Your task to perform on an android device: change timer sound Image 0: 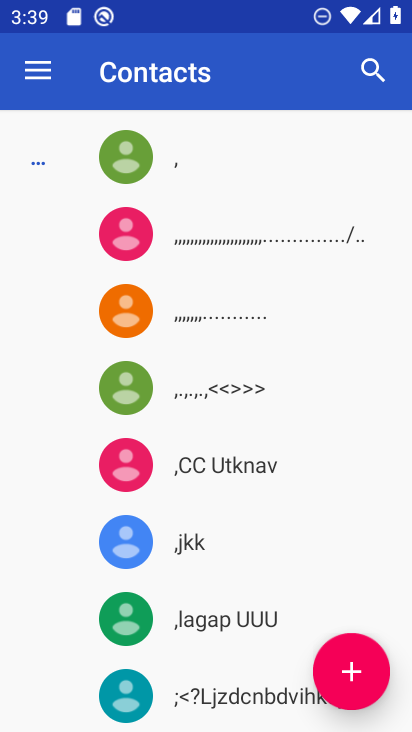
Step 0: press home button
Your task to perform on an android device: change timer sound Image 1: 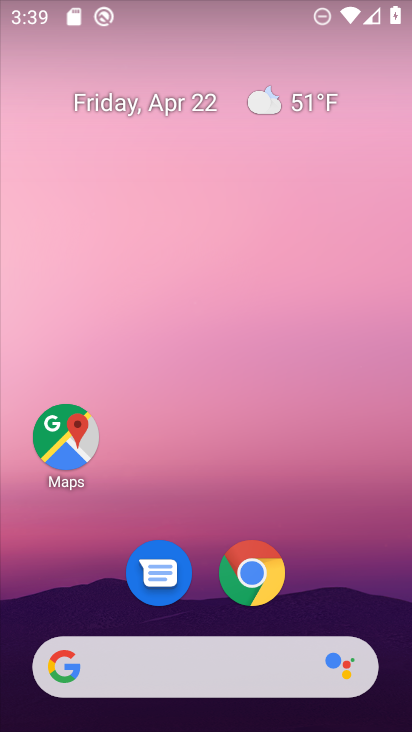
Step 1: drag from (161, 284) to (169, 89)
Your task to perform on an android device: change timer sound Image 2: 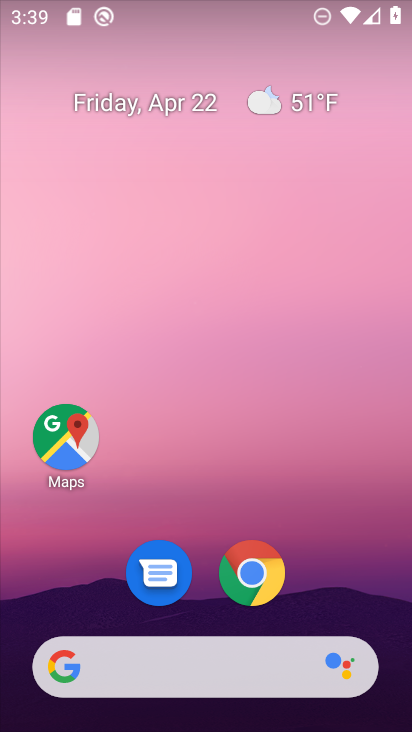
Step 2: drag from (340, 551) to (320, 83)
Your task to perform on an android device: change timer sound Image 3: 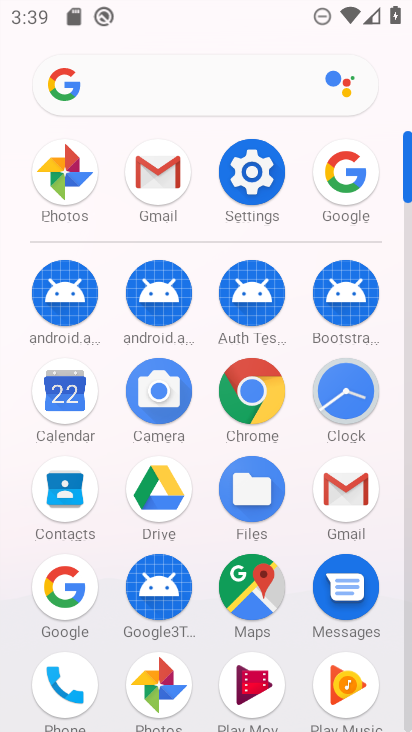
Step 3: click (268, 176)
Your task to perform on an android device: change timer sound Image 4: 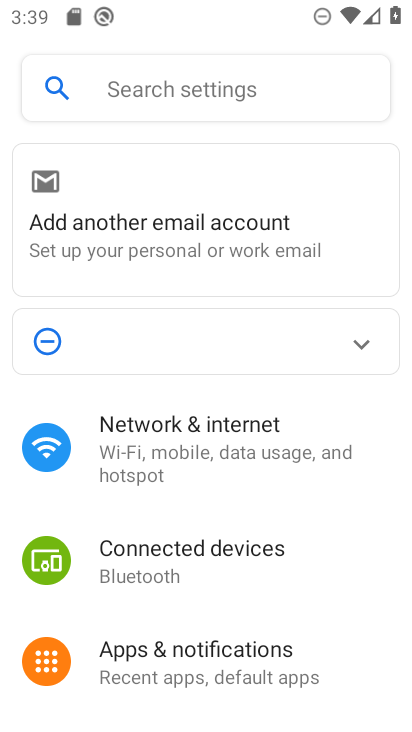
Step 4: press home button
Your task to perform on an android device: change timer sound Image 5: 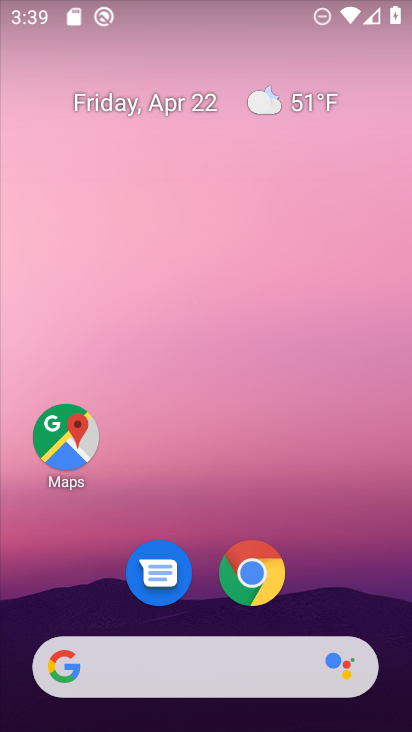
Step 5: drag from (369, 551) to (351, 241)
Your task to perform on an android device: change timer sound Image 6: 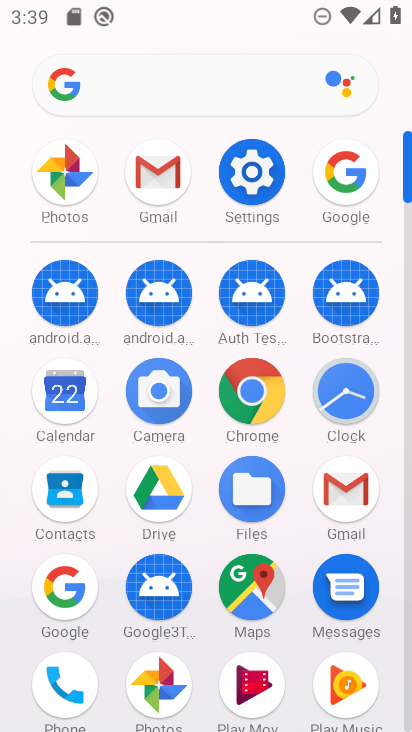
Step 6: click (349, 394)
Your task to perform on an android device: change timer sound Image 7: 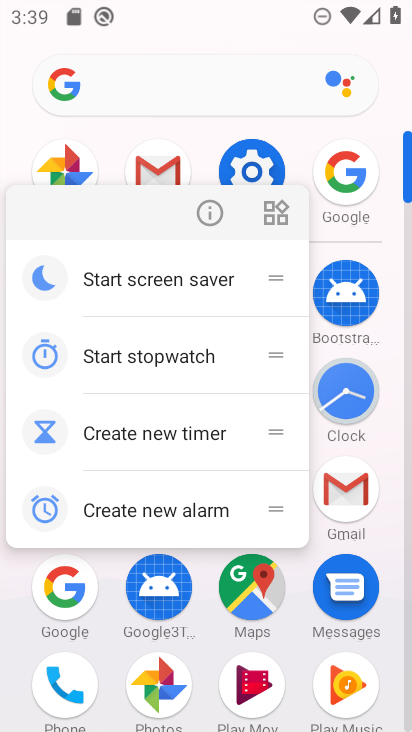
Step 7: click (349, 394)
Your task to perform on an android device: change timer sound Image 8: 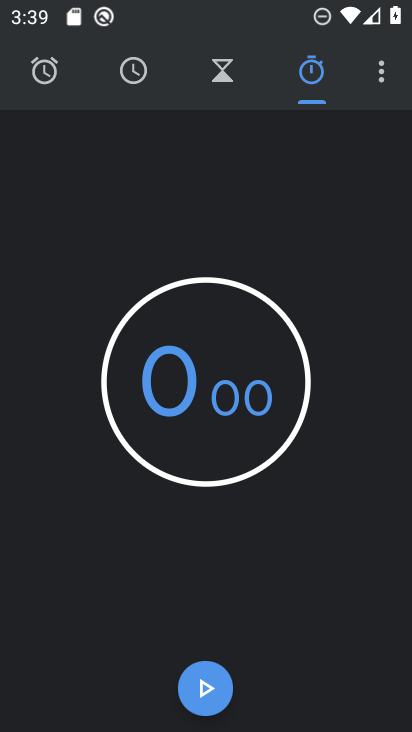
Step 8: click (389, 75)
Your task to perform on an android device: change timer sound Image 9: 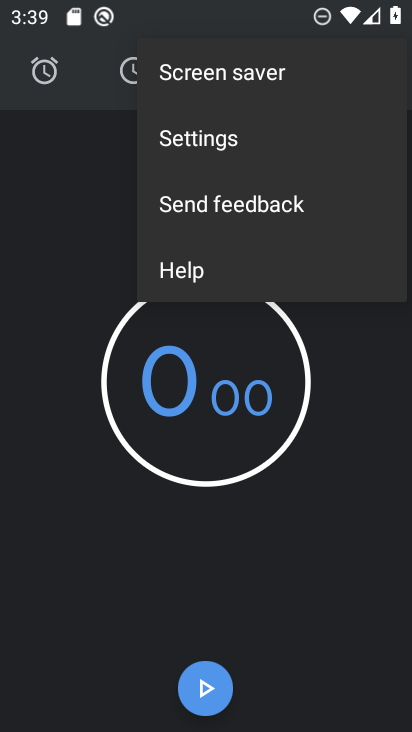
Step 9: click (259, 128)
Your task to perform on an android device: change timer sound Image 10: 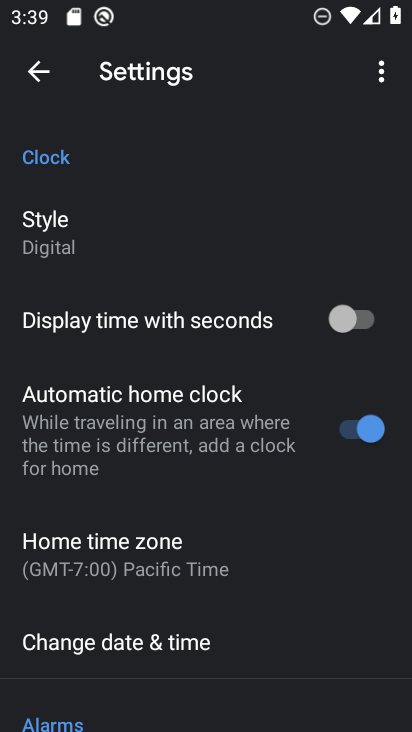
Step 10: drag from (208, 559) to (222, 189)
Your task to perform on an android device: change timer sound Image 11: 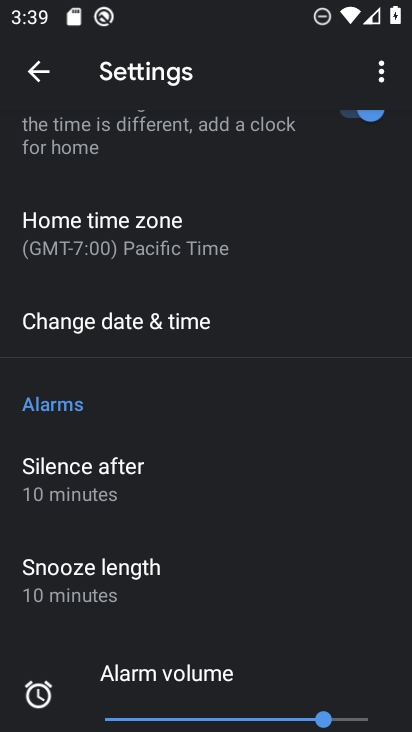
Step 11: drag from (213, 441) to (203, 173)
Your task to perform on an android device: change timer sound Image 12: 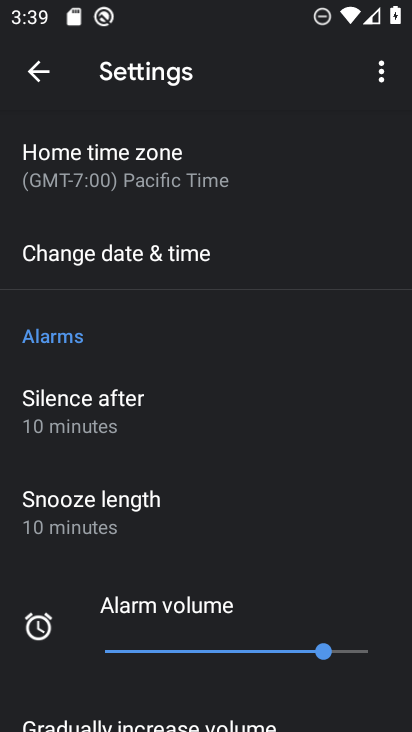
Step 12: drag from (257, 435) to (263, 106)
Your task to perform on an android device: change timer sound Image 13: 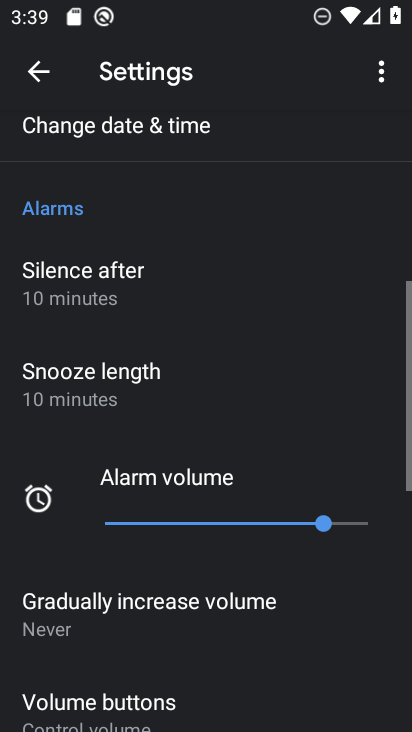
Step 13: drag from (251, 564) to (307, 113)
Your task to perform on an android device: change timer sound Image 14: 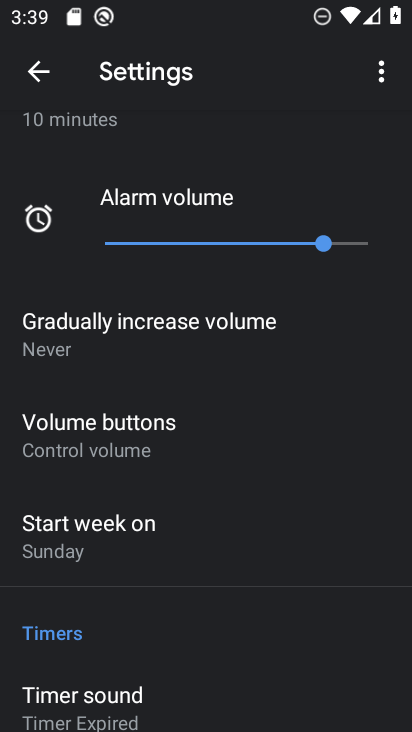
Step 14: drag from (238, 566) to (284, 187)
Your task to perform on an android device: change timer sound Image 15: 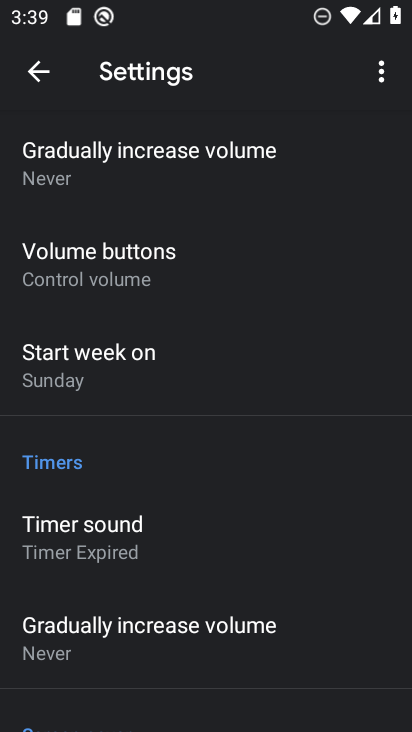
Step 15: click (263, 548)
Your task to perform on an android device: change timer sound Image 16: 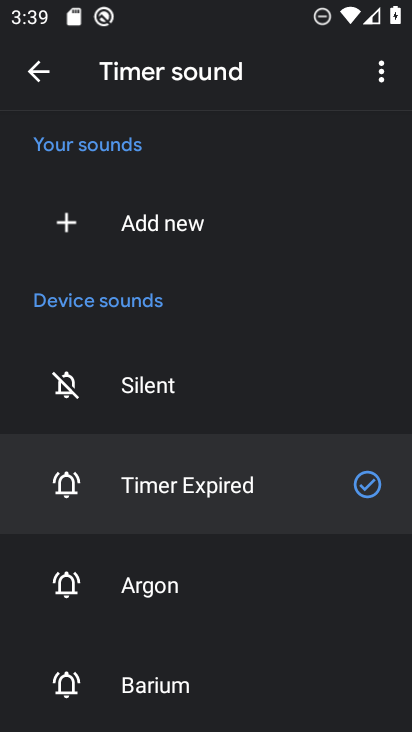
Step 16: click (156, 591)
Your task to perform on an android device: change timer sound Image 17: 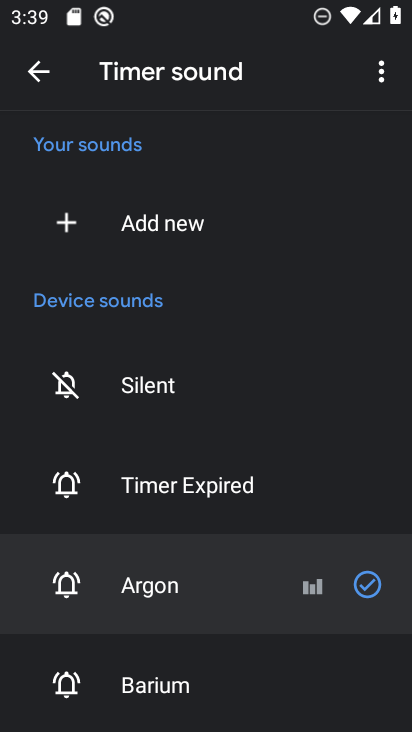
Step 17: task complete